Your task to perform on an android device: turn off wifi Image 0: 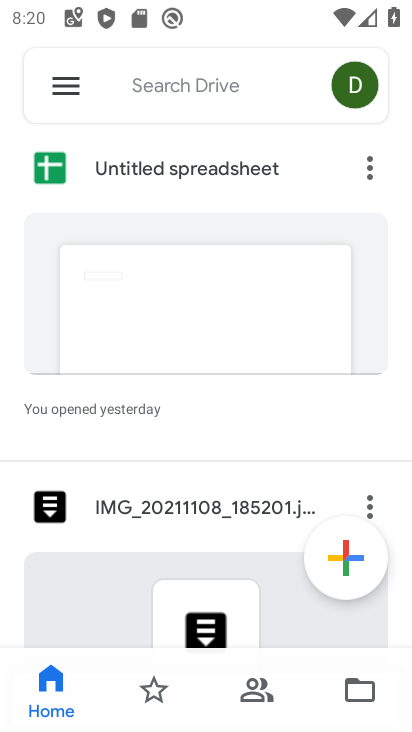
Step 0: press home button
Your task to perform on an android device: turn off wifi Image 1: 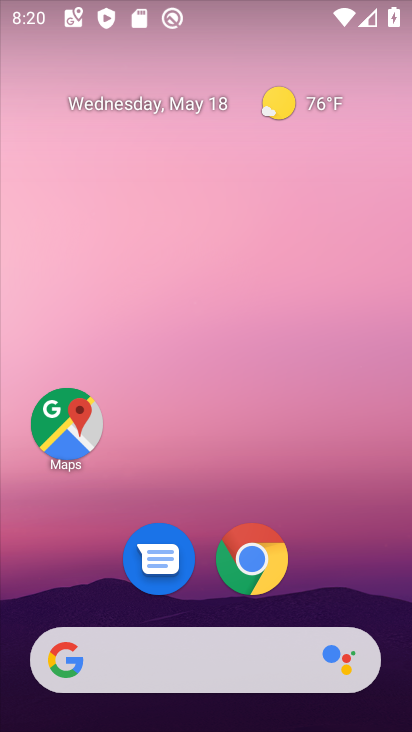
Step 1: drag from (205, 586) to (193, 83)
Your task to perform on an android device: turn off wifi Image 2: 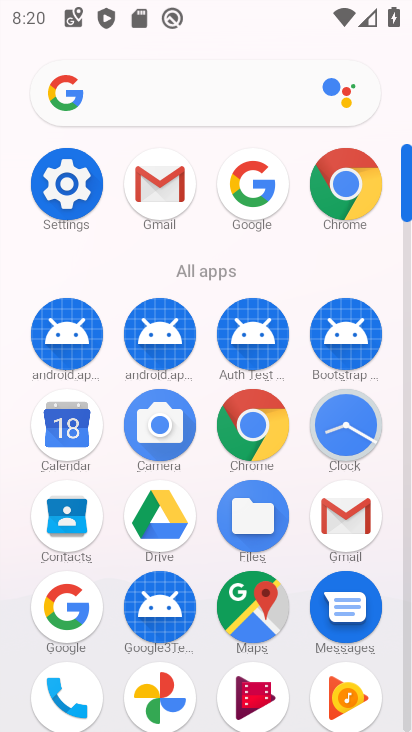
Step 2: click (60, 182)
Your task to perform on an android device: turn off wifi Image 3: 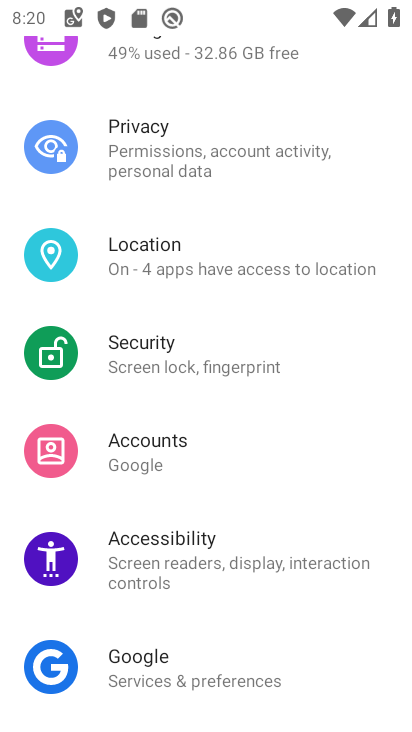
Step 3: drag from (249, 169) to (241, 656)
Your task to perform on an android device: turn off wifi Image 4: 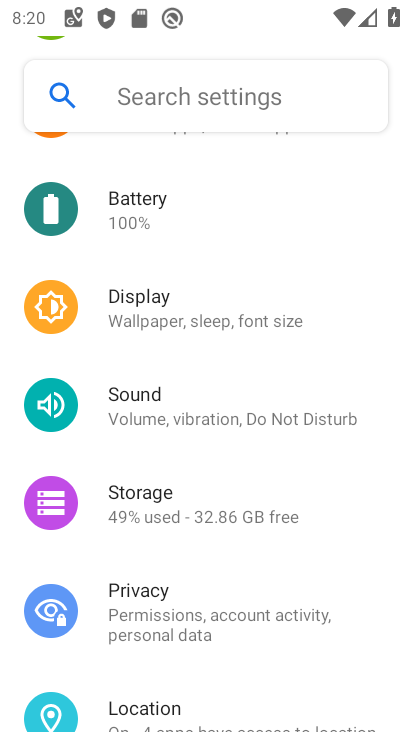
Step 4: drag from (198, 145) to (224, 649)
Your task to perform on an android device: turn off wifi Image 5: 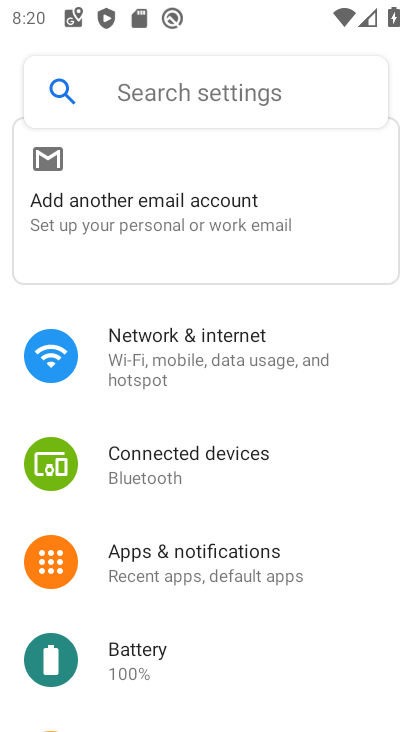
Step 5: click (233, 345)
Your task to perform on an android device: turn off wifi Image 6: 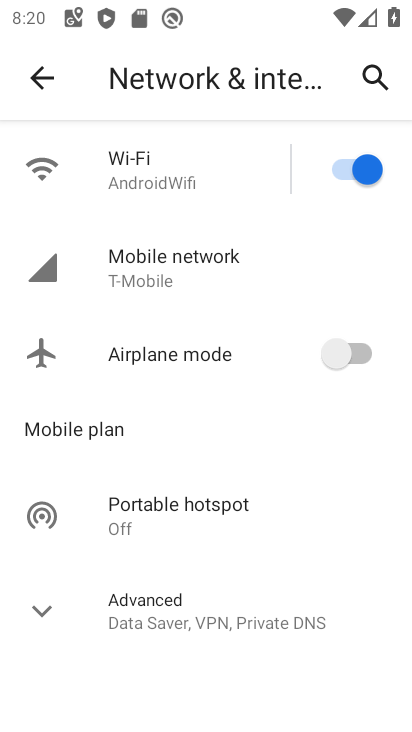
Step 6: click (366, 162)
Your task to perform on an android device: turn off wifi Image 7: 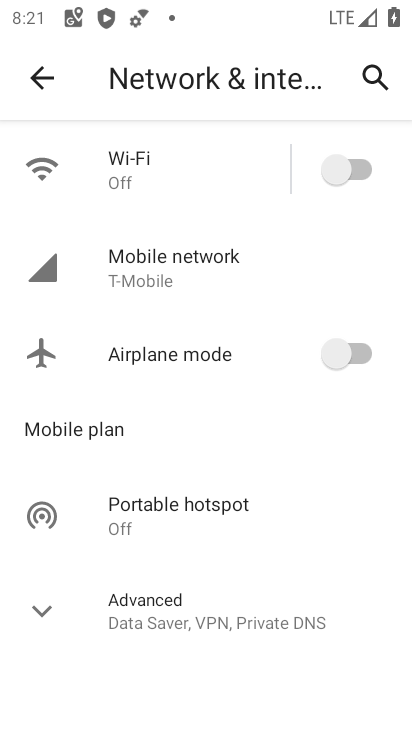
Step 7: task complete